Your task to perform on an android device: Open Wikipedia Image 0: 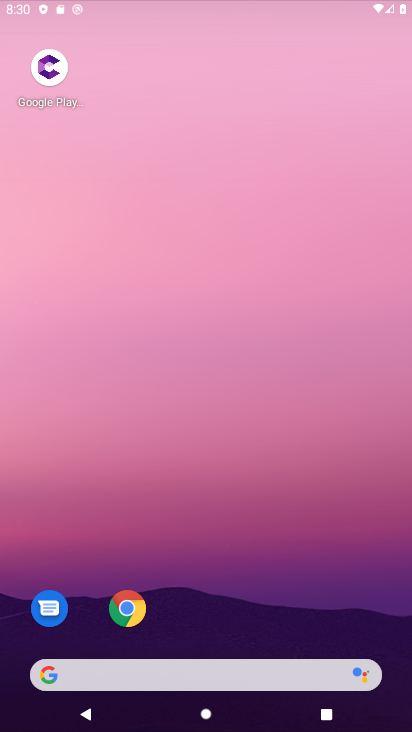
Step 0: drag from (297, 668) to (271, 63)
Your task to perform on an android device: Open Wikipedia Image 1: 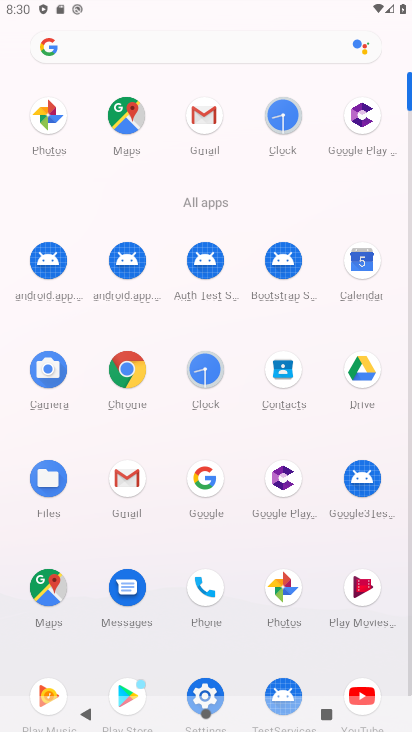
Step 1: click (133, 368)
Your task to perform on an android device: Open Wikipedia Image 2: 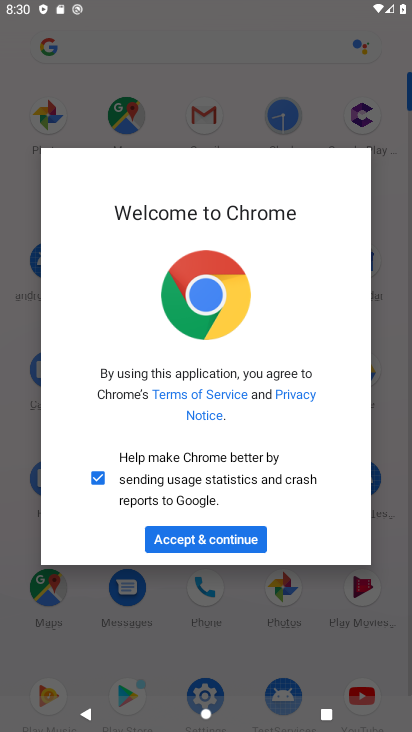
Step 2: click (192, 539)
Your task to perform on an android device: Open Wikipedia Image 3: 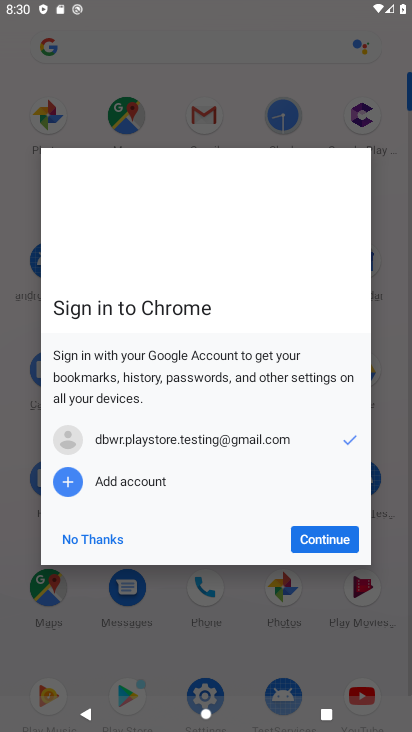
Step 3: click (101, 542)
Your task to perform on an android device: Open Wikipedia Image 4: 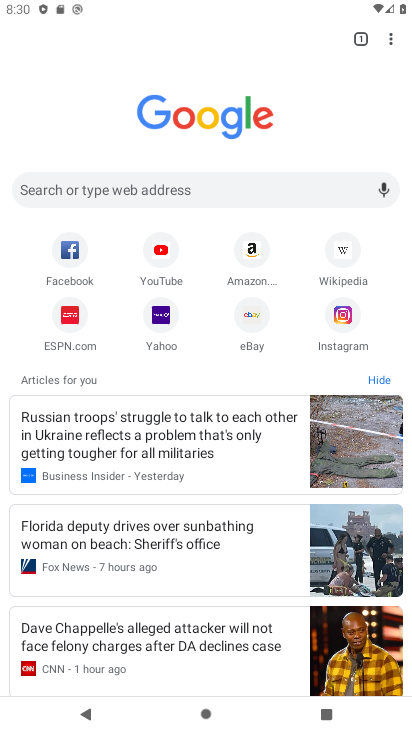
Step 4: click (345, 252)
Your task to perform on an android device: Open Wikipedia Image 5: 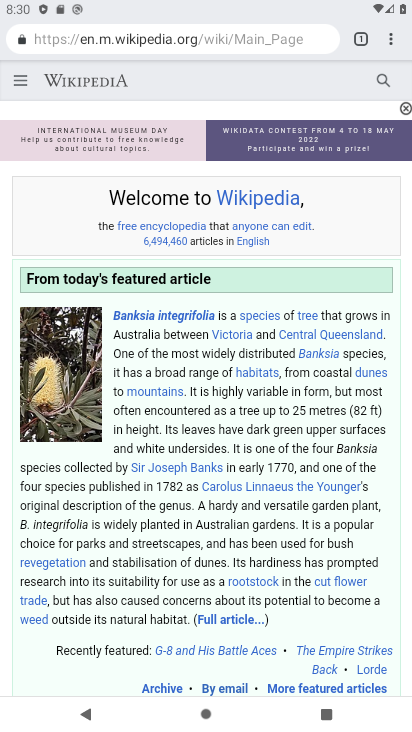
Step 5: task complete